Your task to perform on an android device: Add logitech g903 to the cart on newegg.com, then select checkout. Image 0: 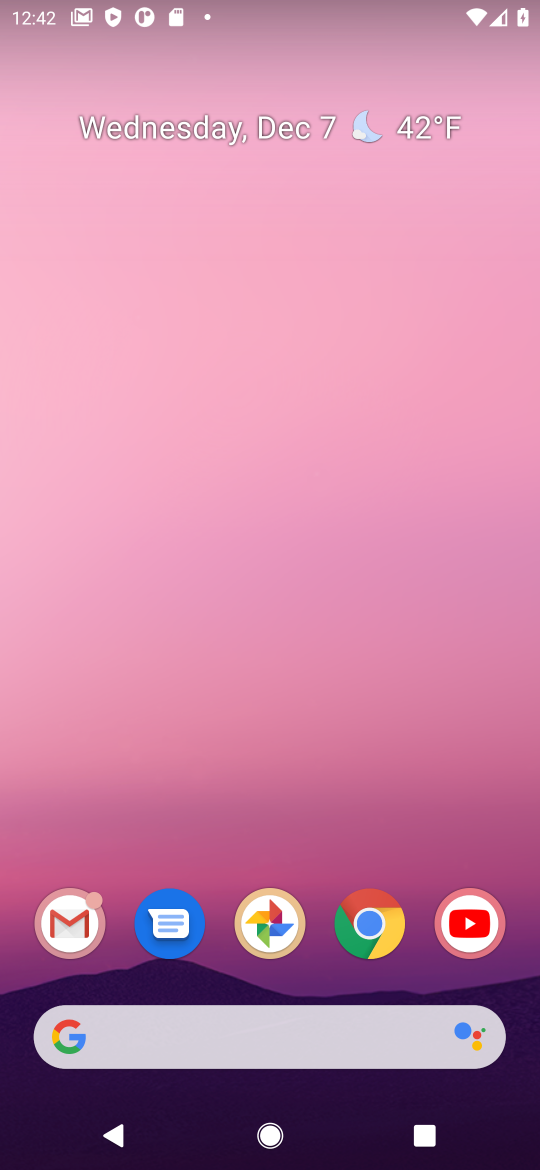
Step 0: task complete